Your task to perform on an android device: Search for sushi restaurants on Maps Image 0: 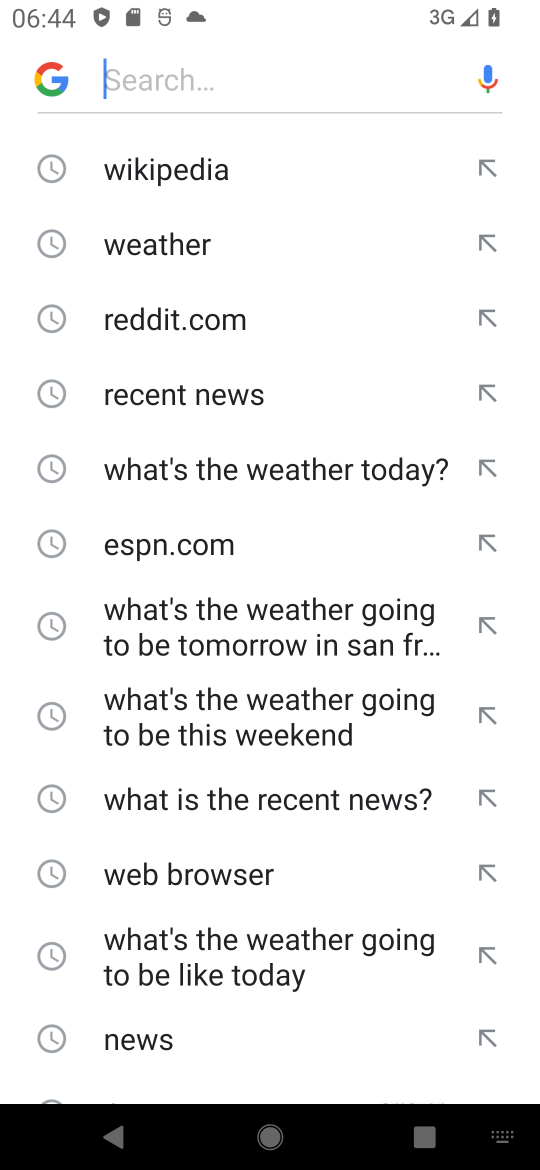
Step 0: press home button
Your task to perform on an android device: Search for sushi restaurants on Maps Image 1: 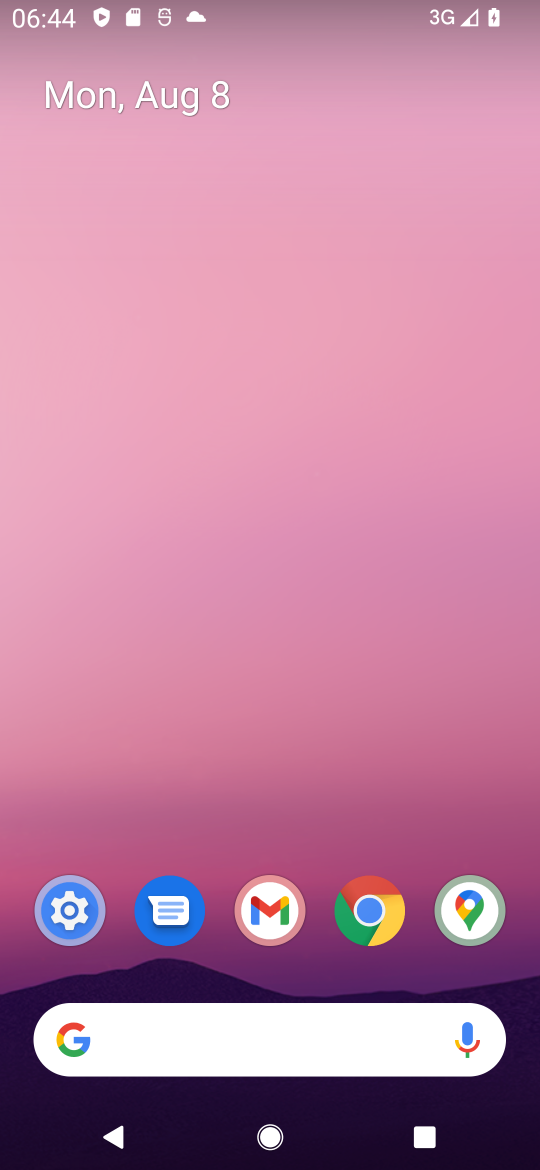
Step 1: click (463, 904)
Your task to perform on an android device: Search for sushi restaurants on Maps Image 2: 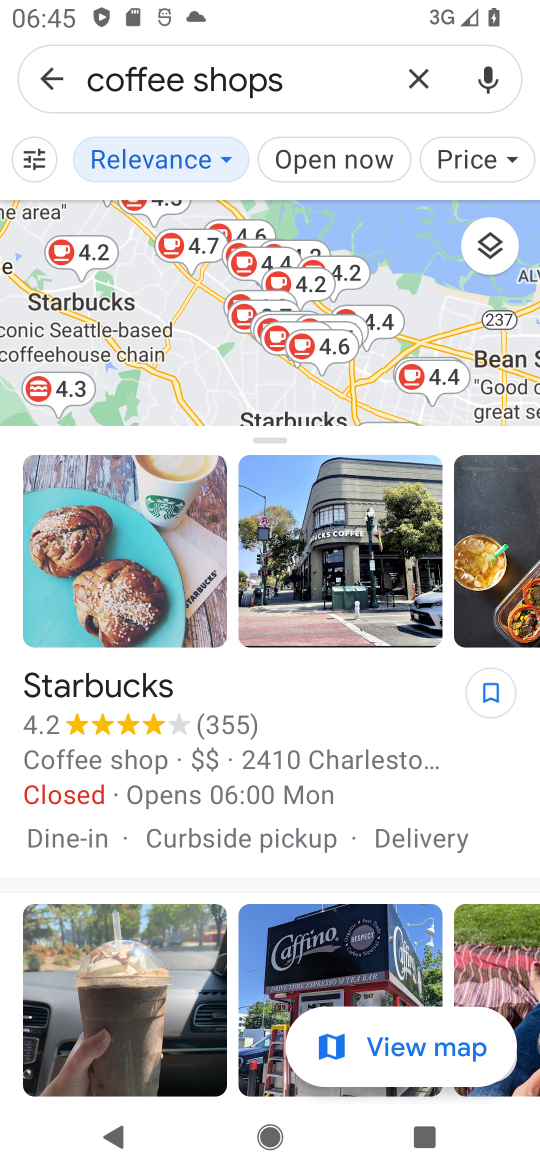
Step 2: click (407, 83)
Your task to perform on an android device: Search for sushi restaurants on Maps Image 3: 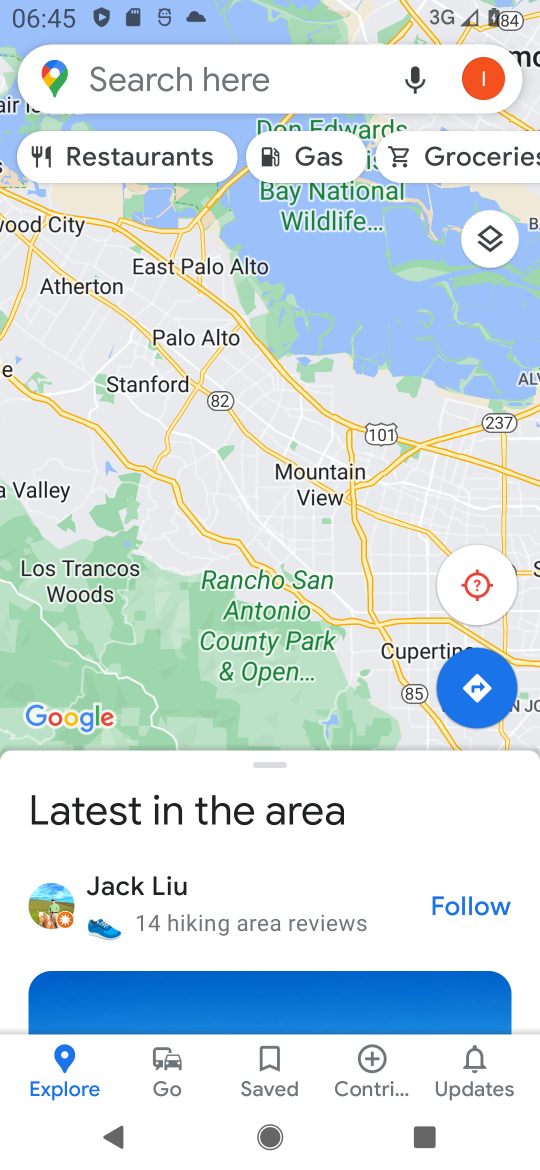
Step 3: click (266, 83)
Your task to perform on an android device: Search for sushi restaurants on Maps Image 4: 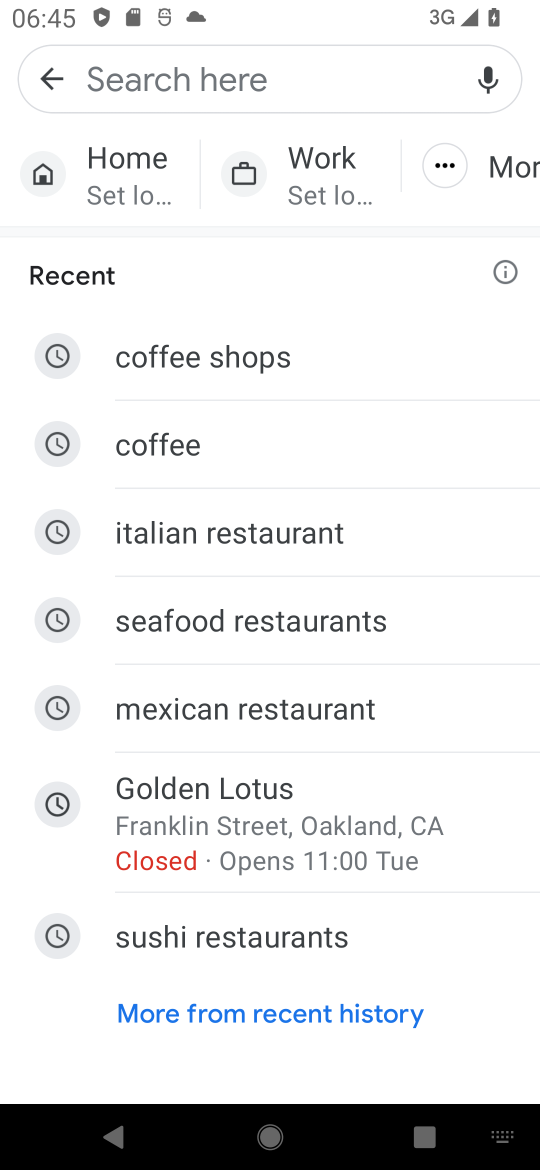
Step 4: type "sushi restaurants"
Your task to perform on an android device: Search for sushi restaurants on Maps Image 5: 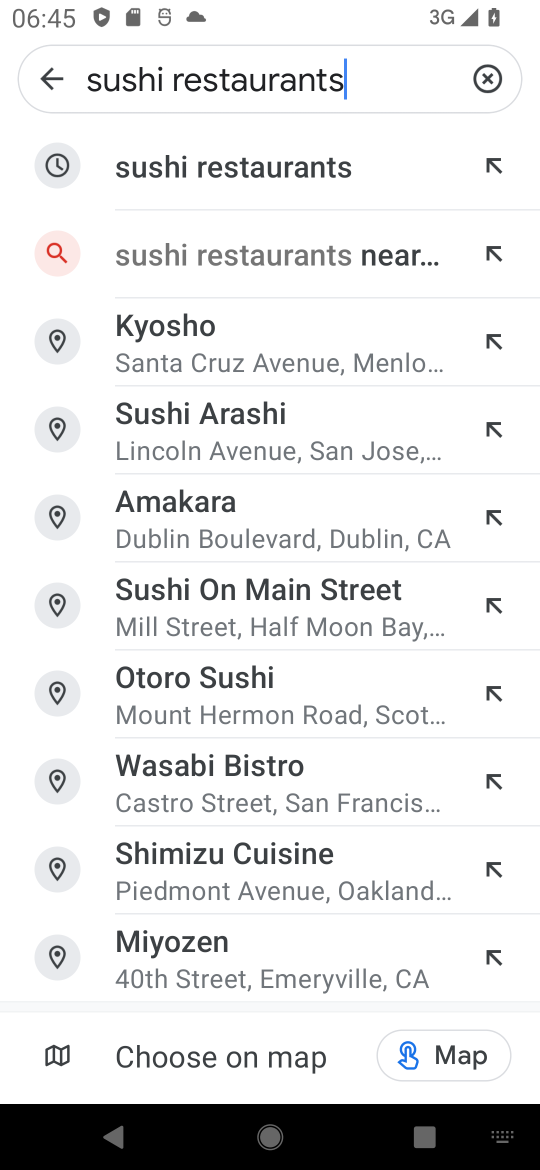
Step 5: click (244, 170)
Your task to perform on an android device: Search for sushi restaurants on Maps Image 6: 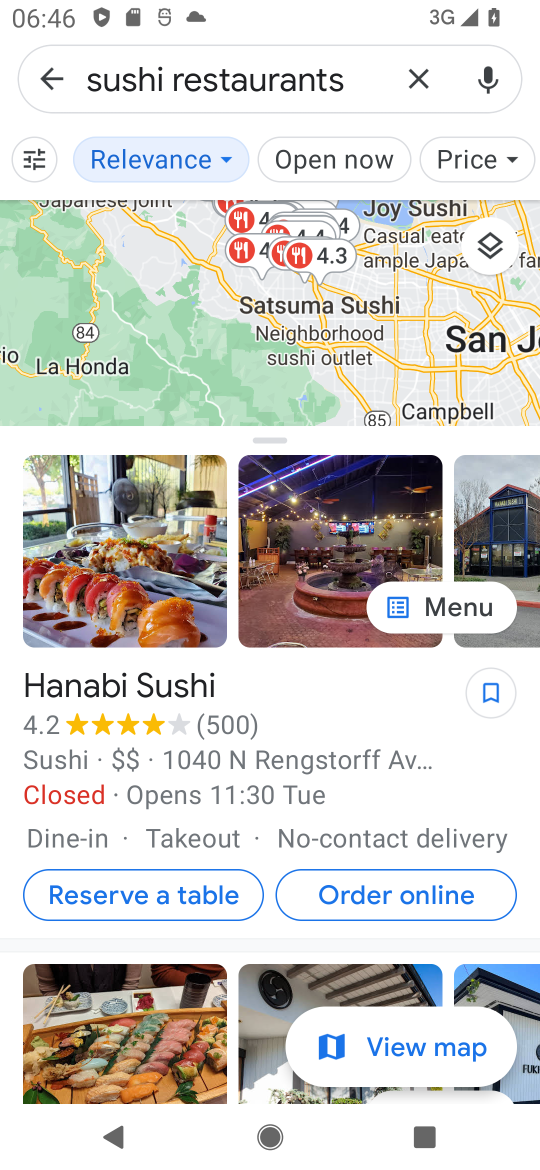
Step 6: task complete